Your task to perform on an android device: Go to Maps Image 0: 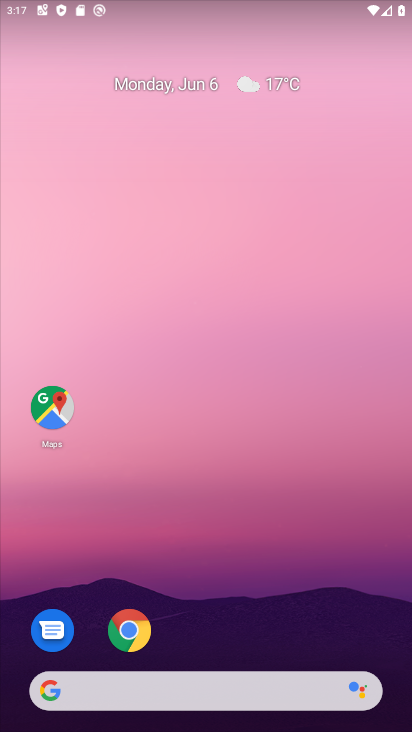
Step 0: click (47, 399)
Your task to perform on an android device: Go to Maps Image 1: 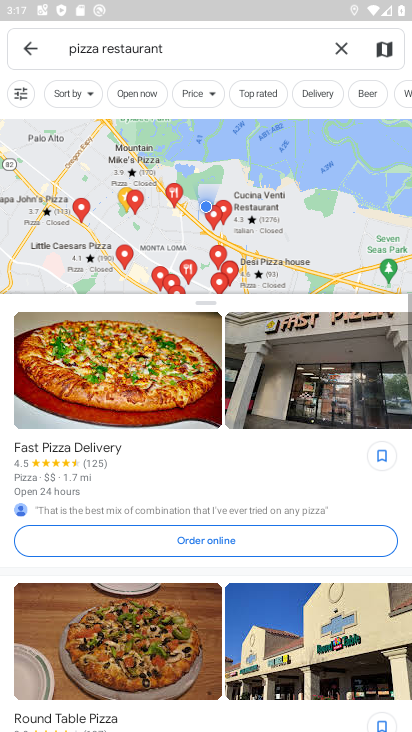
Step 1: task complete